Your task to perform on an android device: Open CNN.com Image 0: 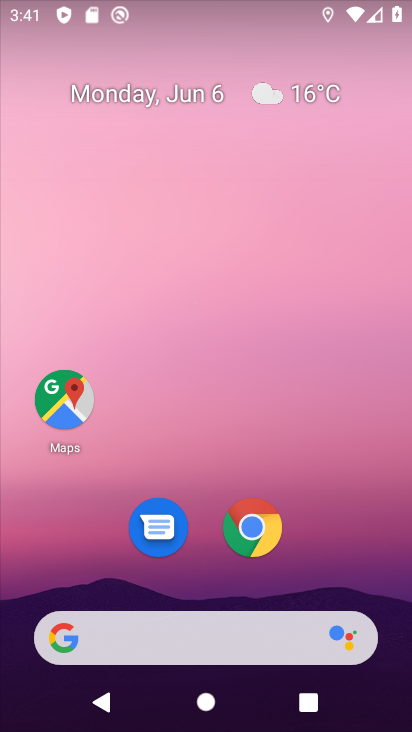
Step 0: click (256, 526)
Your task to perform on an android device: Open CNN.com Image 1: 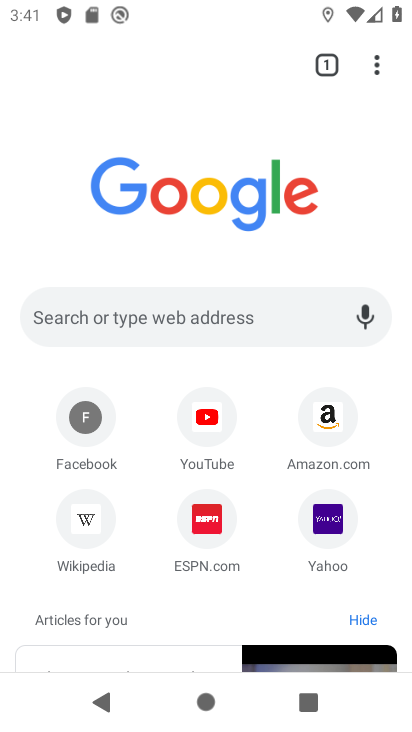
Step 1: click (220, 305)
Your task to perform on an android device: Open CNN.com Image 2: 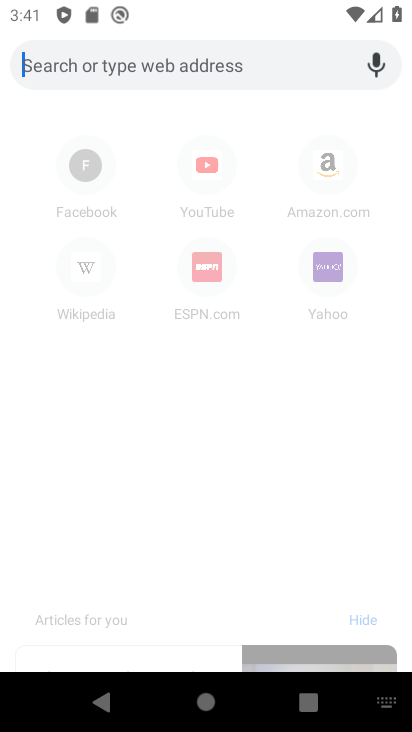
Step 2: type "CNN.com"
Your task to perform on an android device: Open CNN.com Image 3: 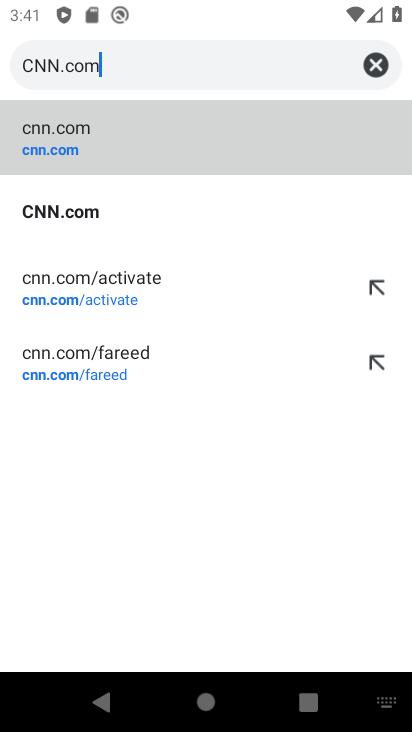
Step 3: click (173, 147)
Your task to perform on an android device: Open CNN.com Image 4: 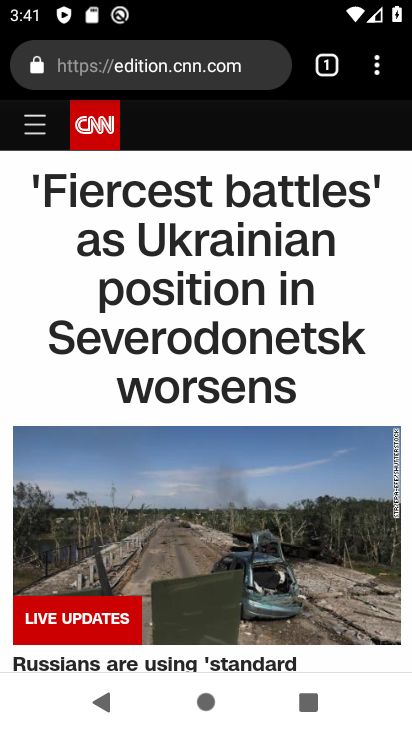
Step 4: task complete